Your task to perform on an android device: open wifi settings Image 0: 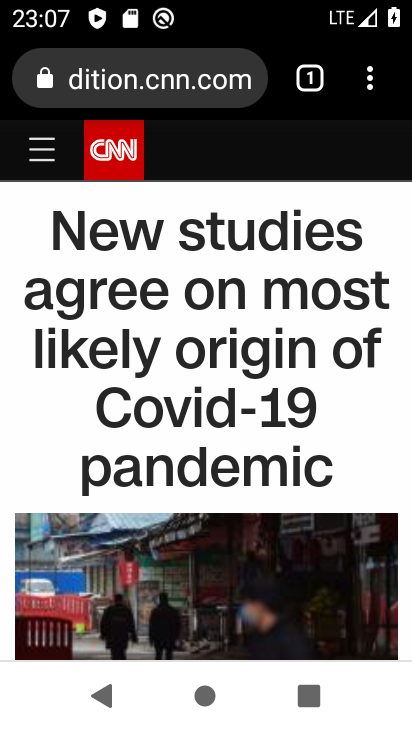
Step 0: press home button
Your task to perform on an android device: open wifi settings Image 1: 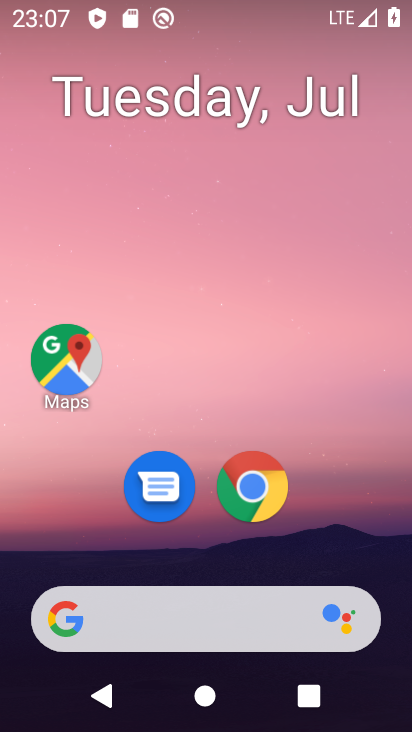
Step 1: drag from (342, 540) to (330, 132)
Your task to perform on an android device: open wifi settings Image 2: 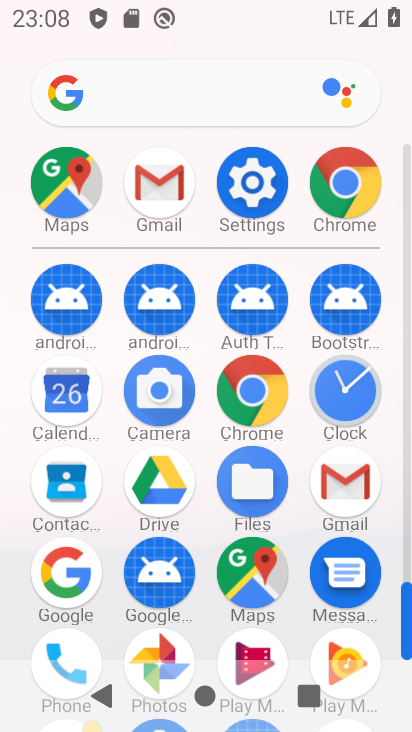
Step 2: click (271, 190)
Your task to perform on an android device: open wifi settings Image 3: 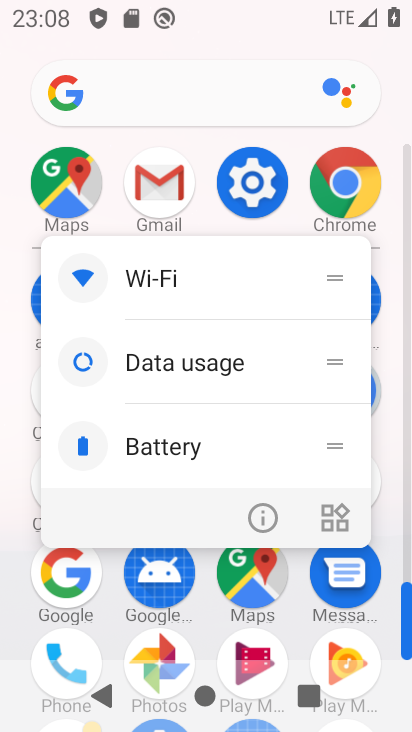
Step 3: click (271, 190)
Your task to perform on an android device: open wifi settings Image 4: 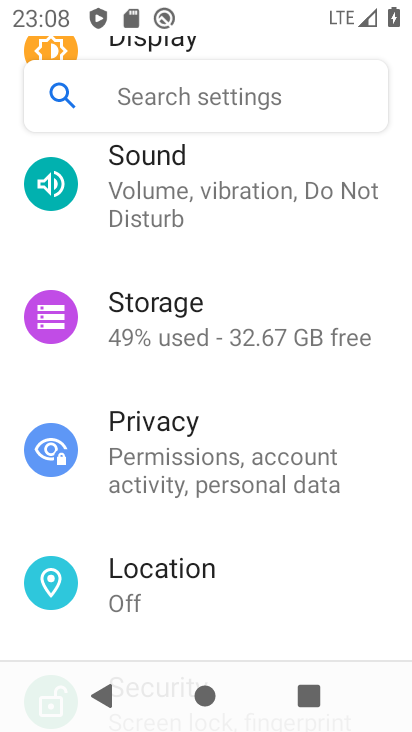
Step 4: drag from (348, 521) to (352, 438)
Your task to perform on an android device: open wifi settings Image 5: 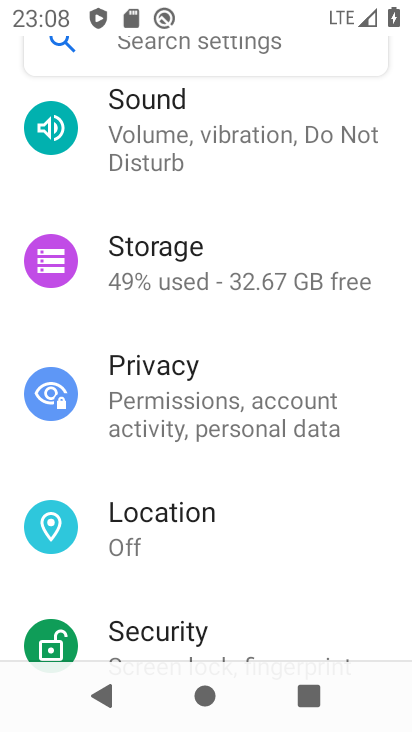
Step 5: drag from (352, 535) to (353, 444)
Your task to perform on an android device: open wifi settings Image 6: 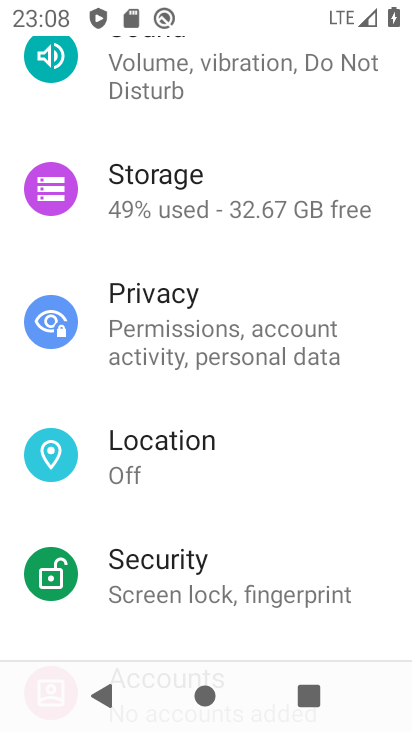
Step 6: drag from (348, 541) to (346, 430)
Your task to perform on an android device: open wifi settings Image 7: 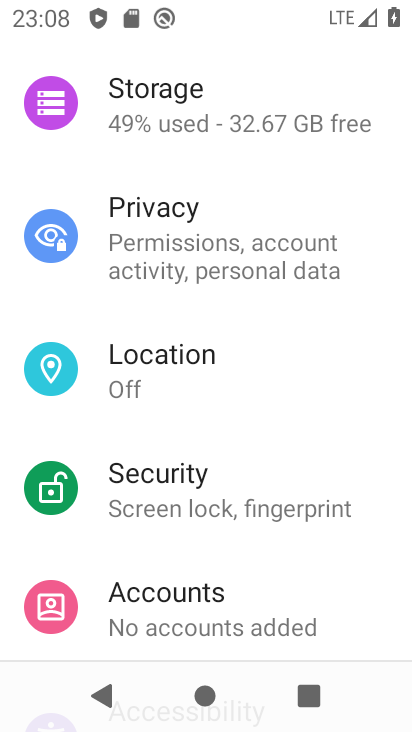
Step 7: drag from (347, 546) to (338, 451)
Your task to perform on an android device: open wifi settings Image 8: 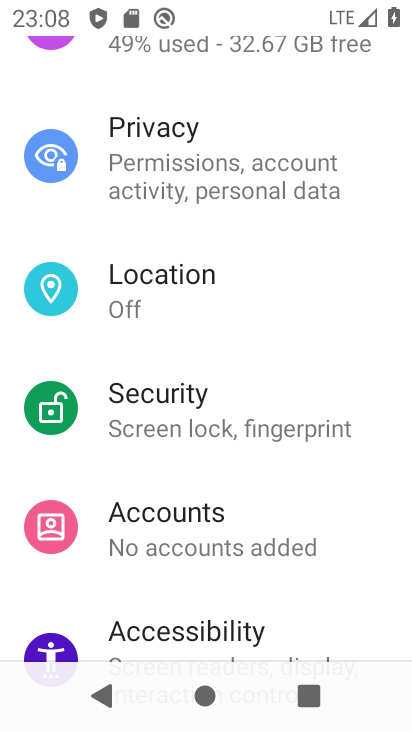
Step 8: drag from (338, 523) to (335, 437)
Your task to perform on an android device: open wifi settings Image 9: 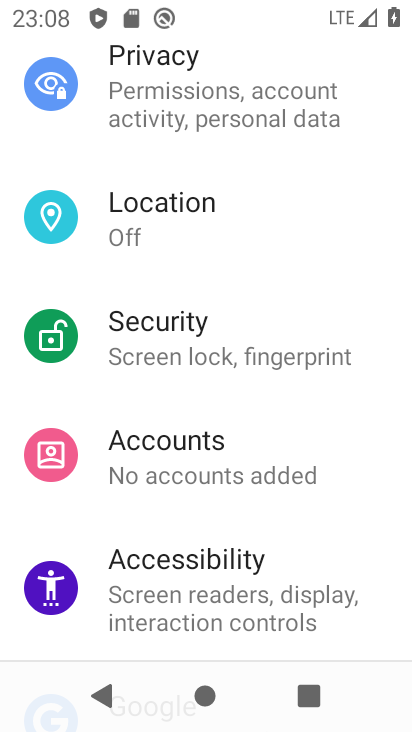
Step 9: drag from (337, 496) to (333, 429)
Your task to perform on an android device: open wifi settings Image 10: 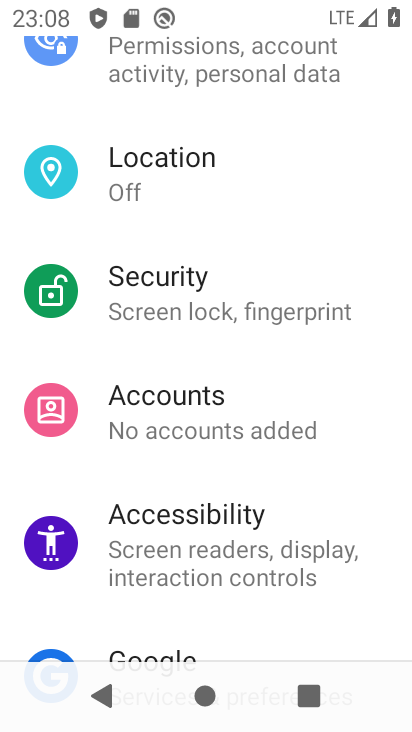
Step 10: drag from (337, 527) to (338, 432)
Your task to perform on an android device: open wifi settings Image 11: 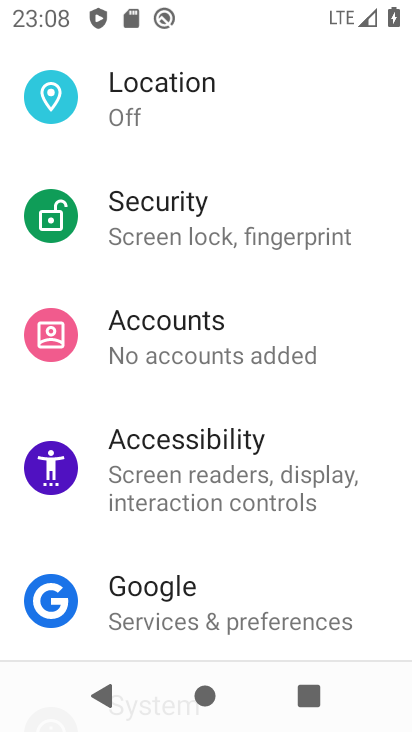
Step 11: drag from (341, 479) to (340, 331)
Your task to perform on an android device: open wifi settings Image 12: 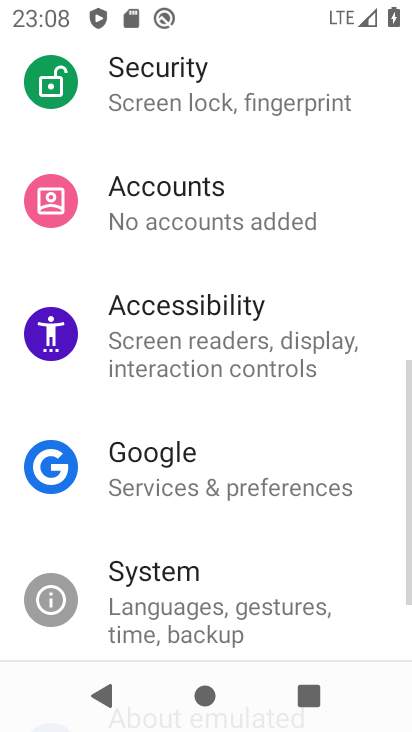
Step 12: drag from (349, 274) to (354, 362)
Your task to perform on an android device: open wifi settings Image 13: 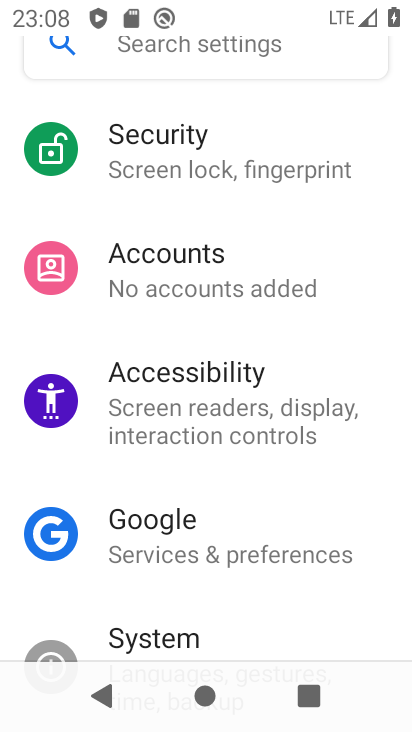
Step 13: drag from (360, 258) to (360, 337)
Your task to perform on an android device: open wifi settings Image 14: 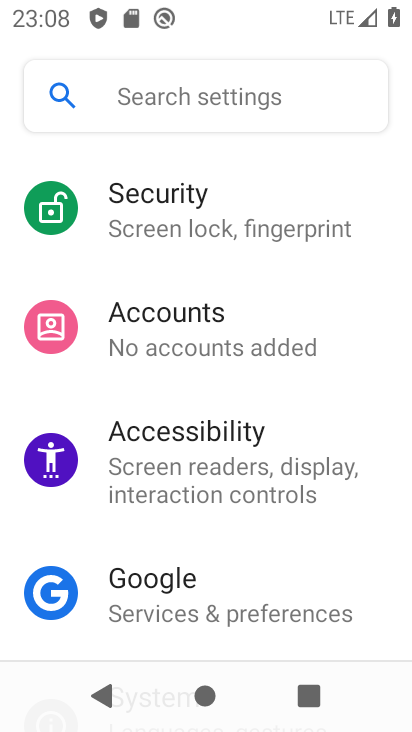
Step 14: drag from (373, 290) to (367, 374)
Your task to perform on an android device: open wifi settings Image 15: 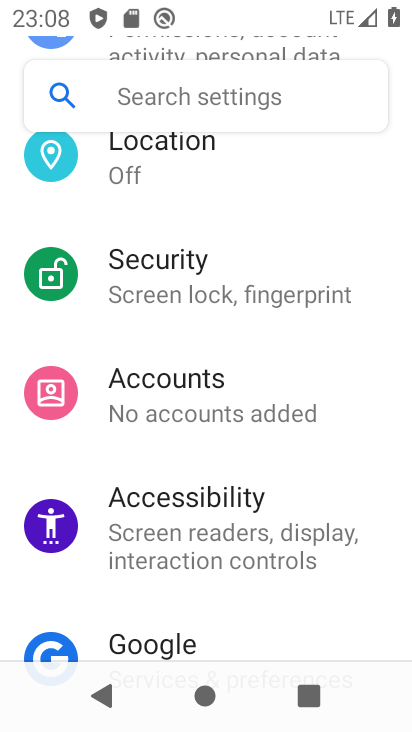
Step 15: drag from (365, 243) to (368, 342)
Your task to perform on an android device: open wifi settings Image 16: 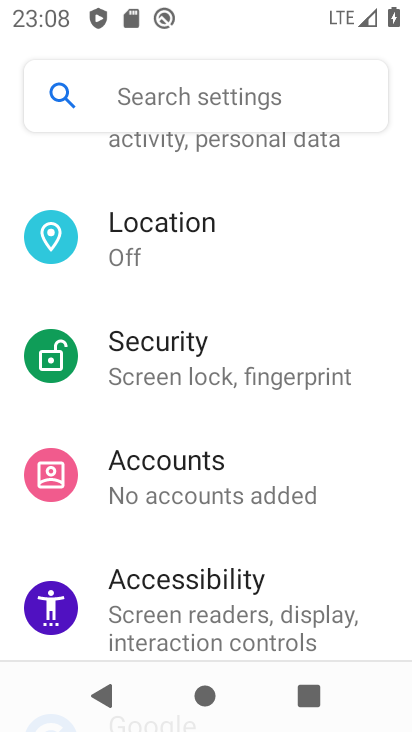
Step 16: drag from (368, 270) to (369, 371)
Your task to perform on an android device: open wifi settings Image 17: 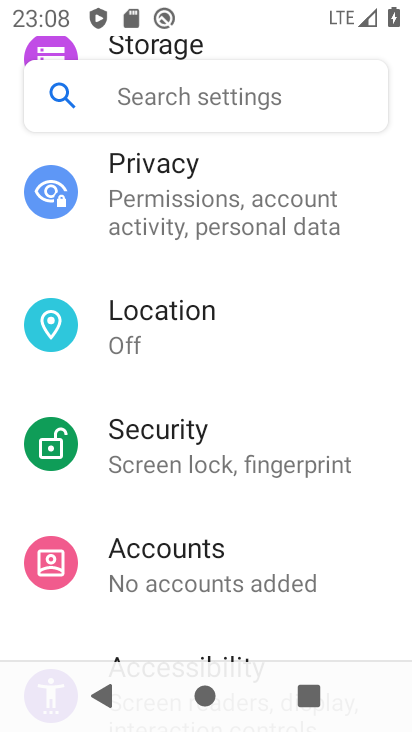
Step 17: drag from (356, 299) to (359, 464)
Your task to perform on an android device: open wifi settings Image 18: 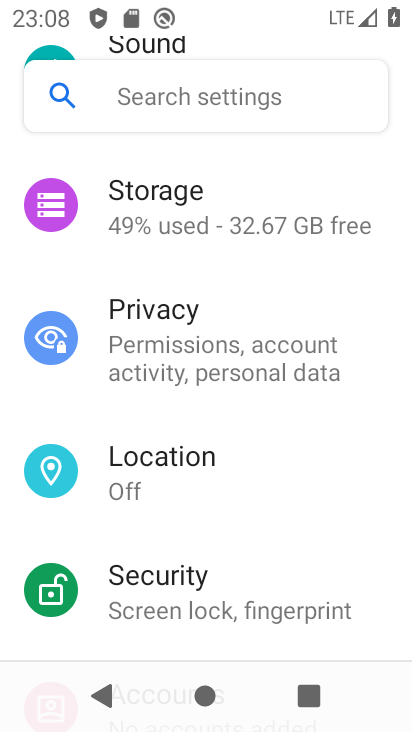
Step 18: drag from (353, 261) to (357, 417)
Your task to perform on an android device: open wifi settings Image 19: 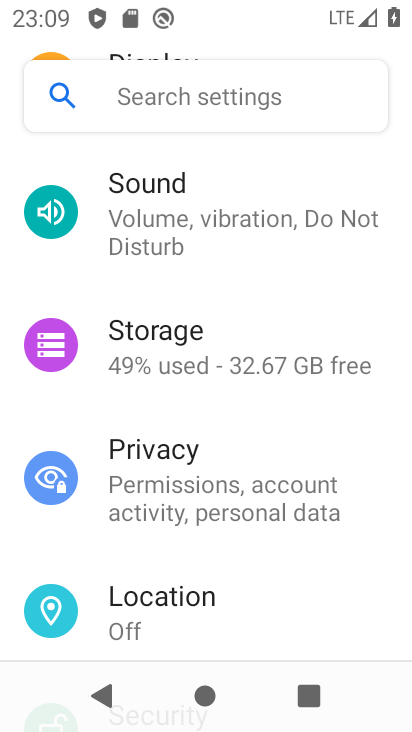
Step 19: drag from (358, 291) to (358, 376)
Your task to perform on an android device: open wifi settings Image 20: 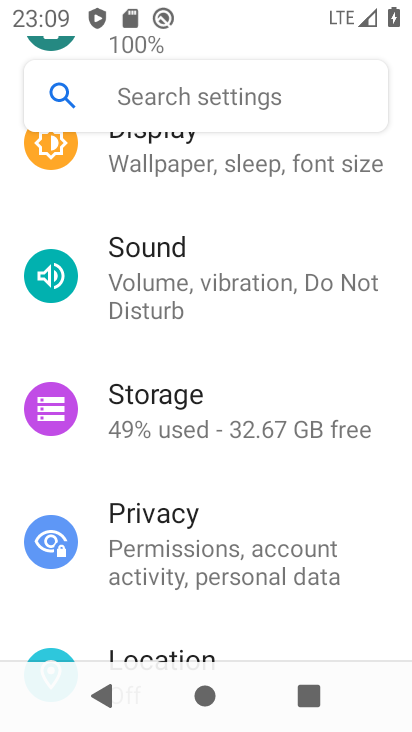
Step 20: drag from (364, 277) to (364, 376)
Your task to perform on an android device: open wifi settings Image 21: 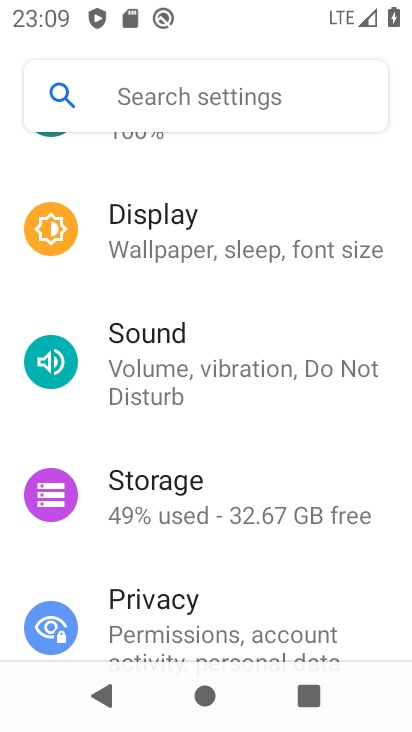
Step 21: drag from (369, 276) to (367, 351)
Your task to perform on an android device: open wifi settings Image 22: 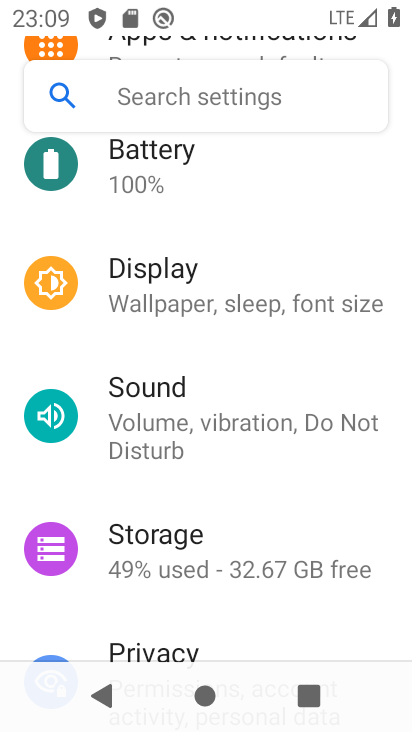
Step 22: drag from (350, 236) to (343, 293)
Your task to perform on an android device: open wifi settings Image 23: 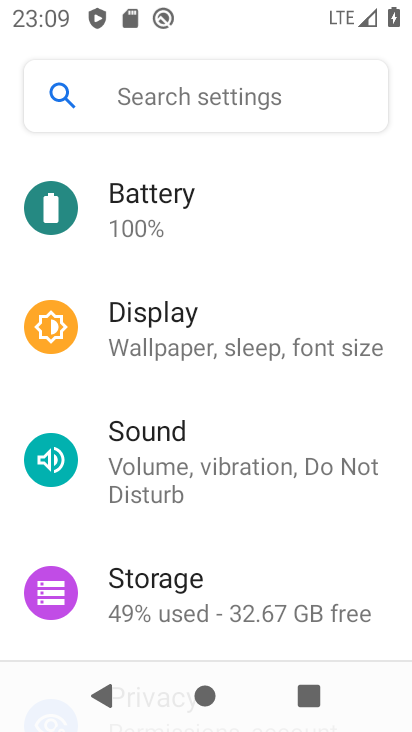
Step 23: drag from (307, 240) to (312, 378)
Your task to perform on an android device: open wifi settings Image 24: 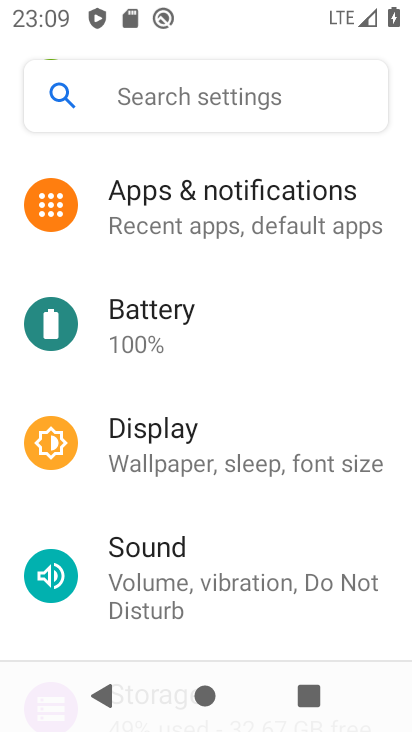
Step 24: drag from (313, 291) to (313, 426)
Your task to perform on an android device: open wifi settings Image 25: 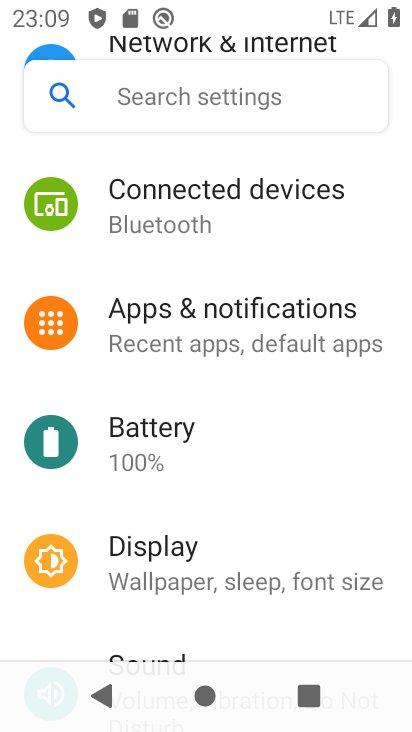
Step 25: drag from (311, 244) to (312, 408)
Your task to perform on an android device: open wifi settings Image 26: 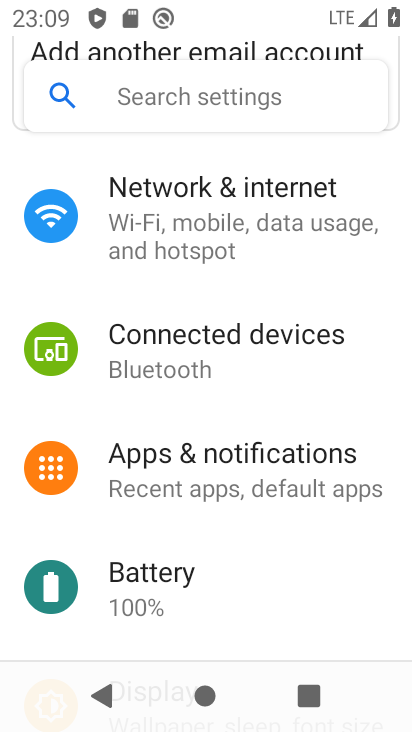
Step 26: click (298, 221)
Your task to perform on an android device: open wifi settings Image 27: 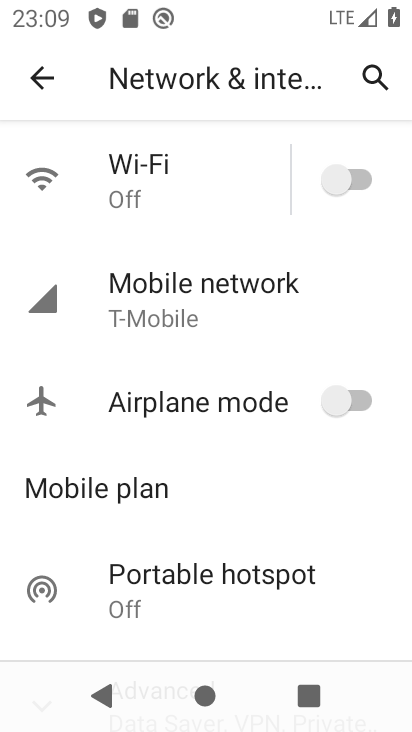
Step 27: click (192, 177)
Your task to perform on an android device: open wifi settings Image 28: 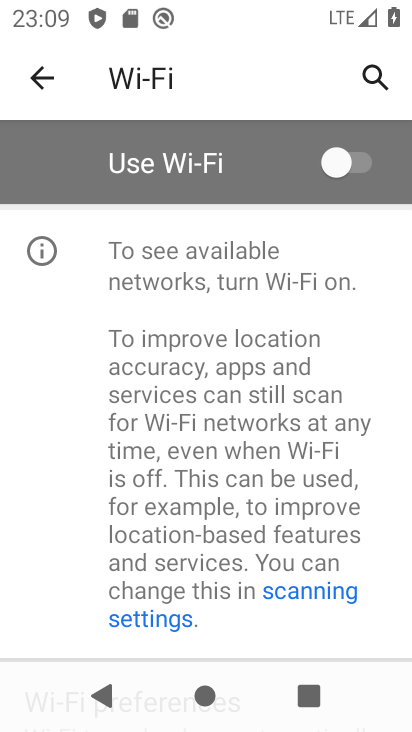
Step 28: task complete